Your task to perform on an android device: find snoozed emails in the gmail app Image 0: 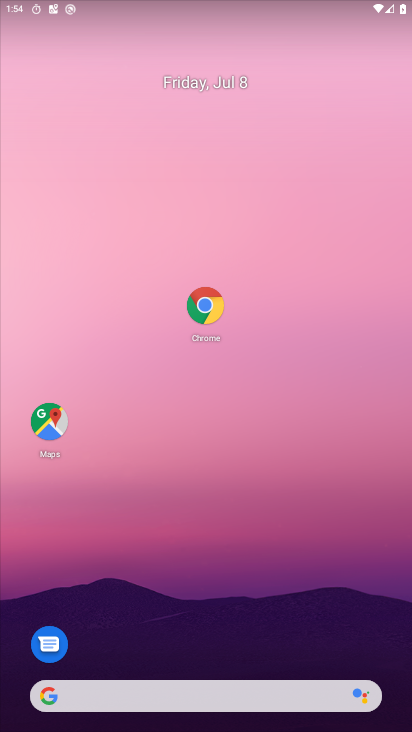
Step 0: drag from (140, 645) to (188, 304)
Your task to perform on an android device: find snoozed emails in the gmail app Image 1: 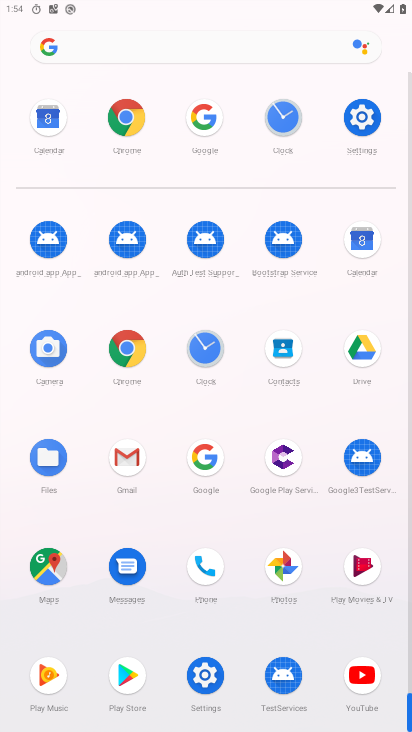
Step 1: click (123, 459)
Your task to perform on an android device: find snoozed emails in the gmail app Image 2: 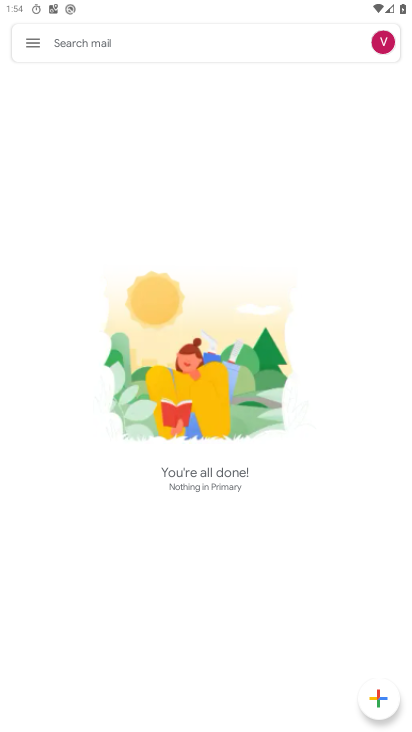
Step 2: click (39, 40)
Your task to perform on an android device: find snoozed emails in the gmail app Image 3: 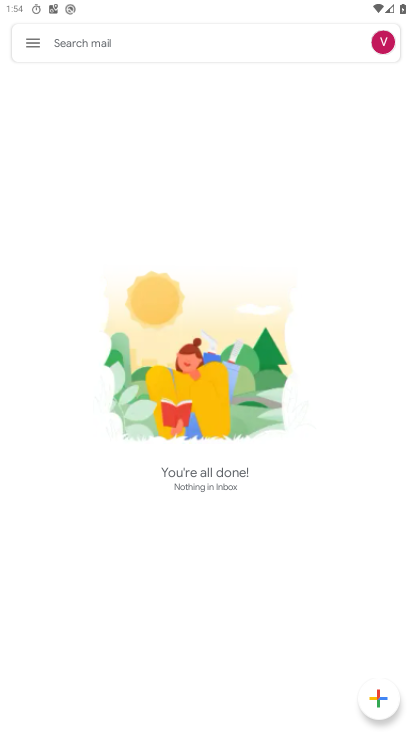
Step 3: click (31, 41)
Your task to perform on an android device: find snoozed emails in the gmail app Image 4: 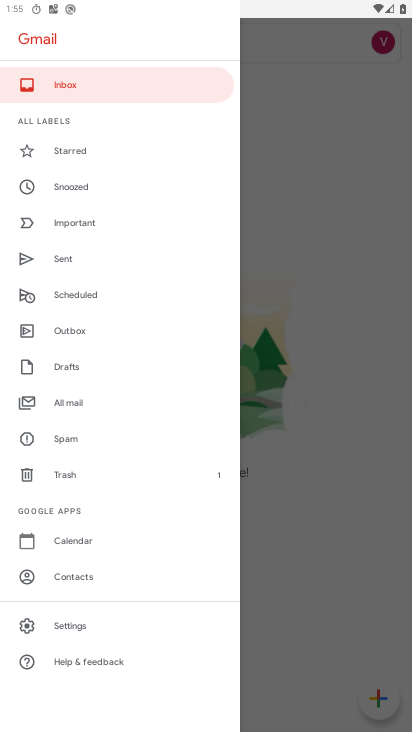
Step 4: click (76, 184)
Your task to perform on an android device: find snoozed emails in the gmail app Image 5: 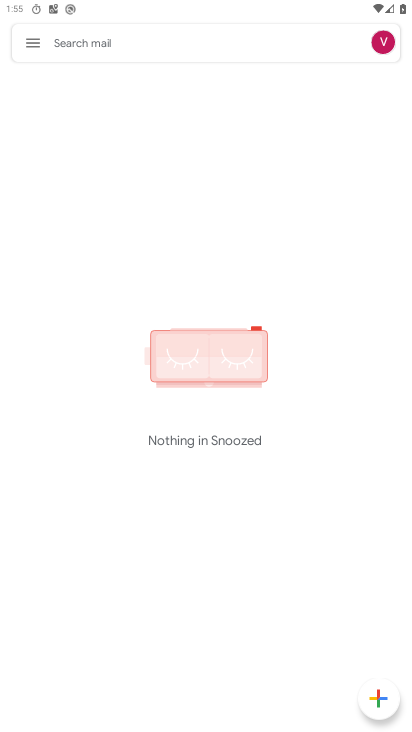
Step 5: task complete